Your task to perform on an android device: turn on location history Image 0: 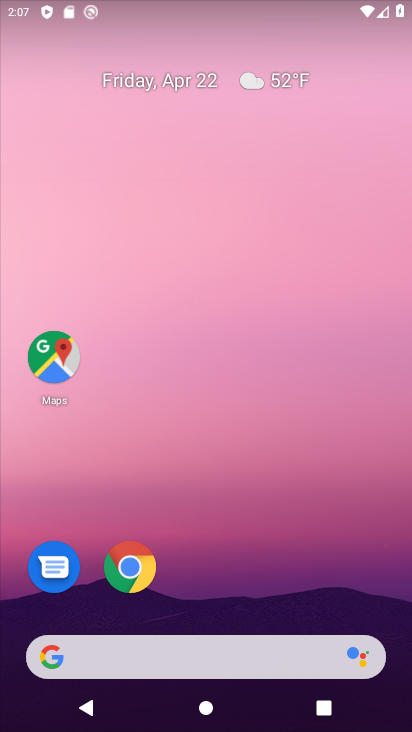
Step 0: drag from (271, 514) to (235, 34)
Your task to perform on an android device: turn on location history Image 1: 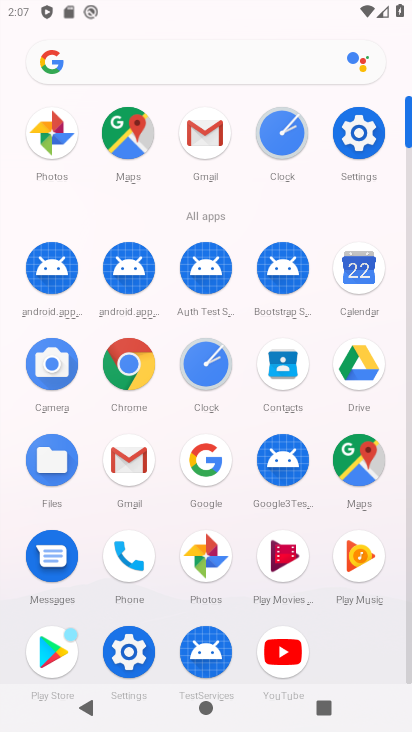
Step 1: click (124, 641)
Your task to perform on an android device: turn on location history Image 2: 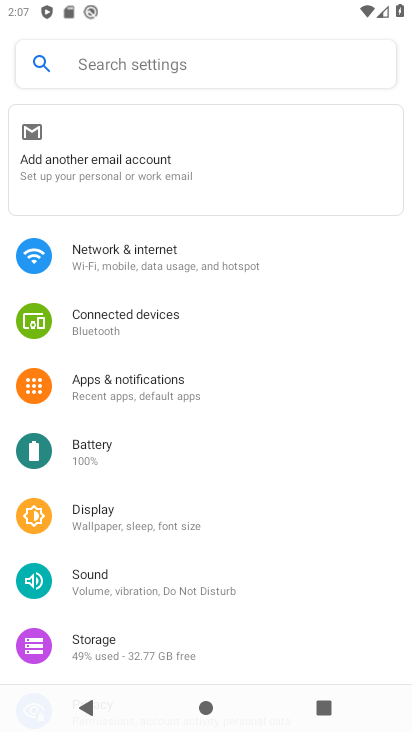
Step 2: drag from (207, 549) to (196, 240)
Your task to perform on an android device: turn on location history Image 3: 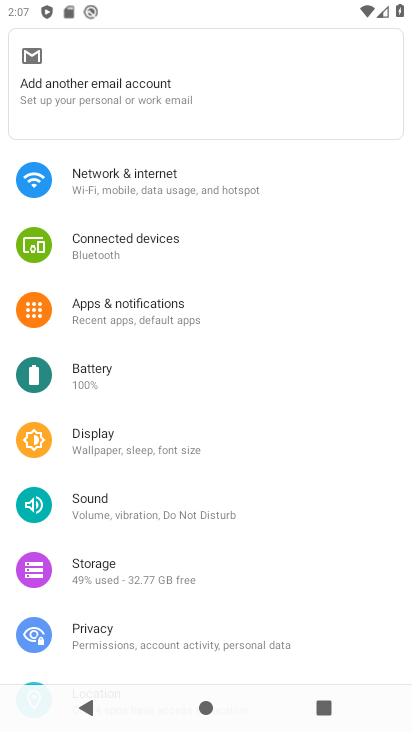
Step 3: drag from (174, 521) to (203, 172)
Your task to perform on an android device: turn on location history Image 4: 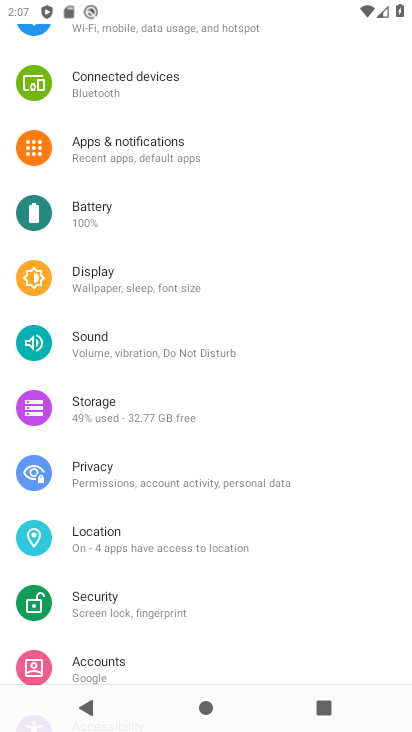
Step 4: click (146, 526)
Your task to perform on an android device: turn on location history Image 5: 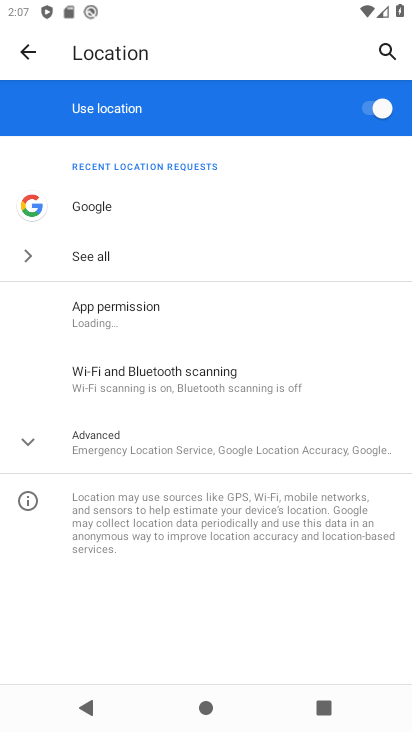
Step 5: click (154, 432)
Your task to perform on an android device: turn on location history Image 6: 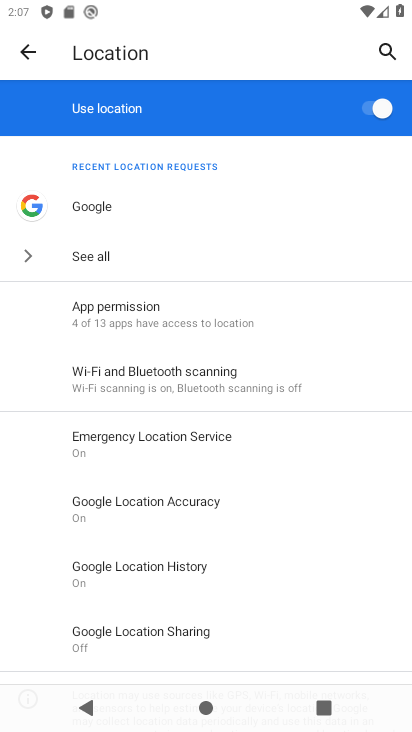
Step 6: click (163, 563)
Your task to perform on an android device: turn on location history Image 7: 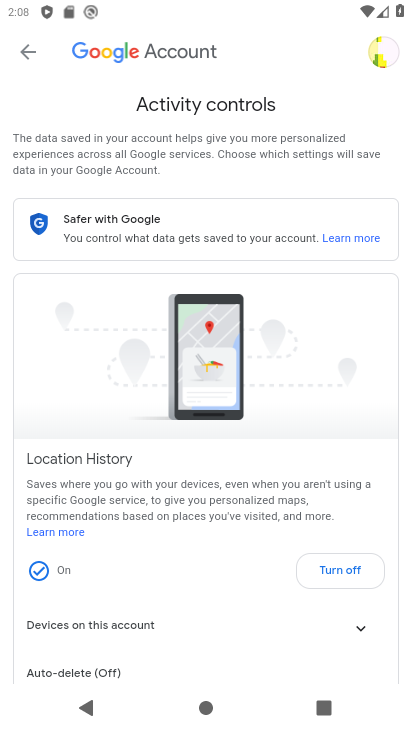
Step 7: task complete